Your task to perform on an android device: delete a single message in the gmail app Image 0: 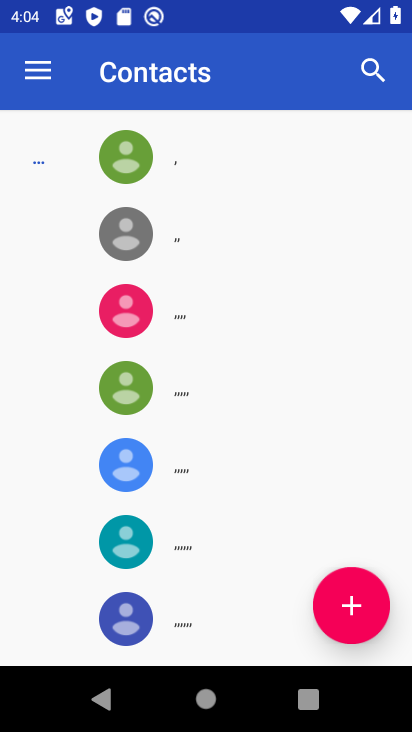
Step 0: press home button
Your task to perform on an android device: delete a single message in the gmail app Image 1: 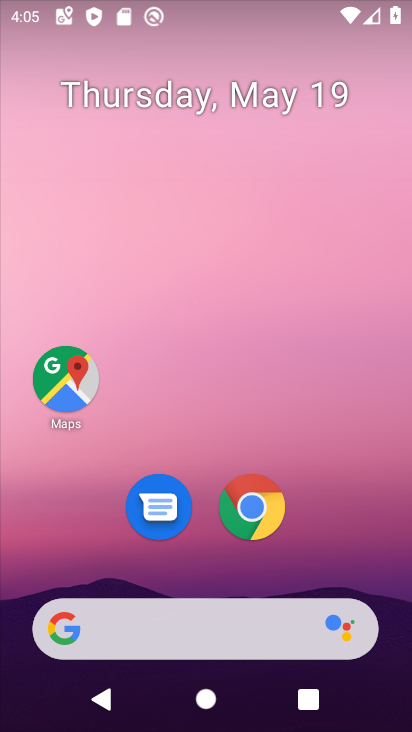
Step 1: drag from (407, 586) to (411, 374)
Your task to perform on an android device: delete a single message in the gmail app Image 2: 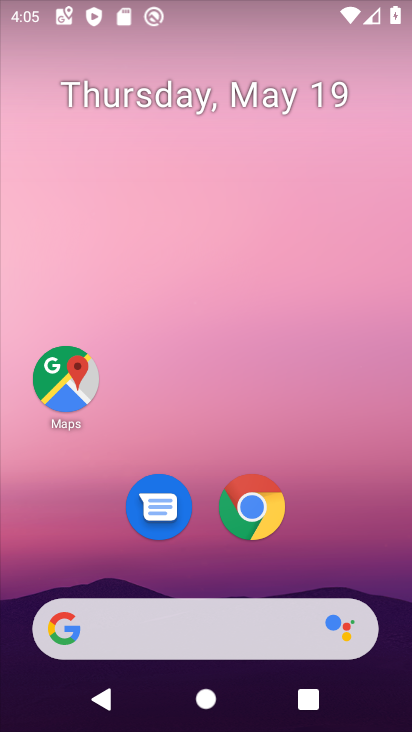
Step 2: drag from (381, 505) to (386, 196)
Your task to perform on an android device: delete a single message in the gmail app Image 3: 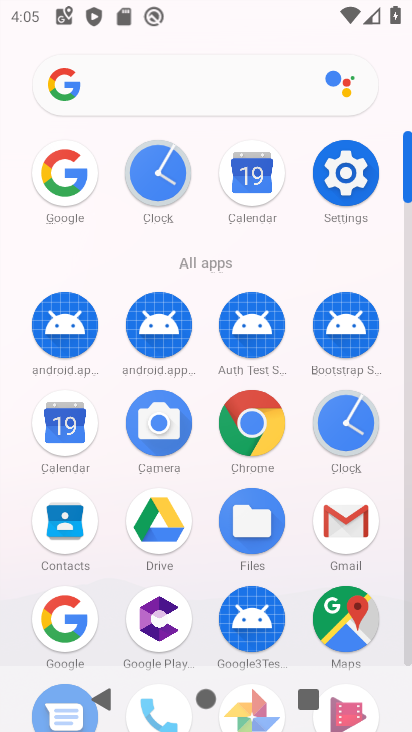
Step 3: click (342, 532)
Your task to perform on an android device: delete a single message in the gmail app Image 4: 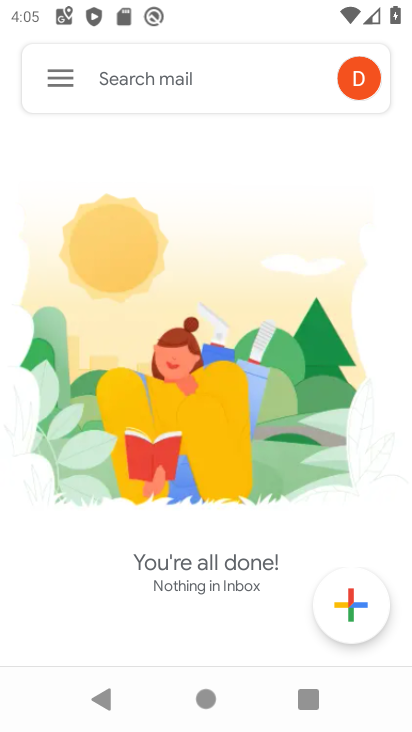
Step 4: click (56, 80)
Your task to perform on an android device: delete a single message in the gmail app Image 5: 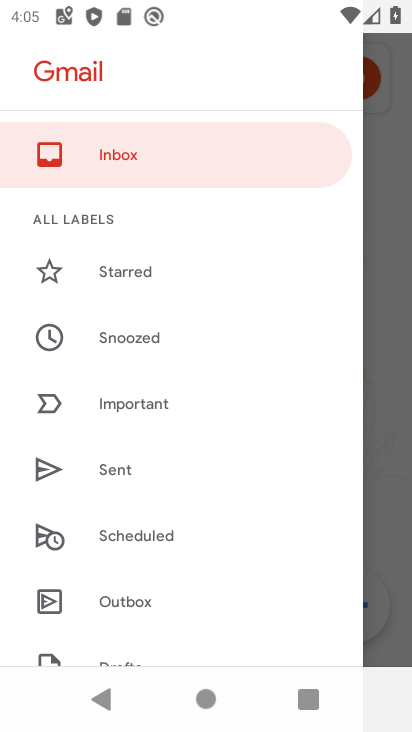
Step 5: click (102, 153)
Your task to perform on an android device: delete a single message in the gmail app Image 6: 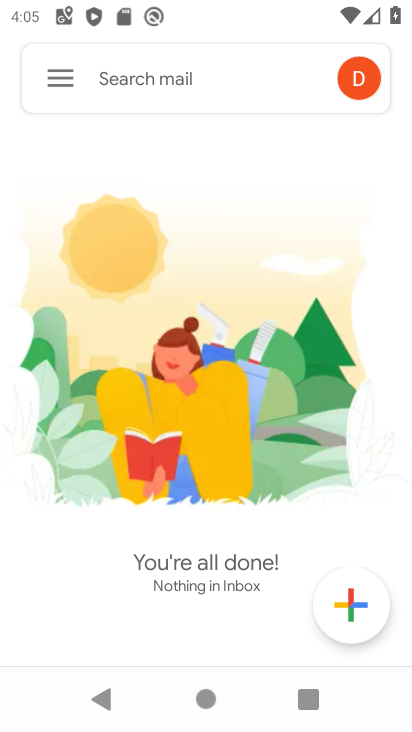
Step 6: task complete